Your task to perform on an android device: Open Wikipedia Image 0: 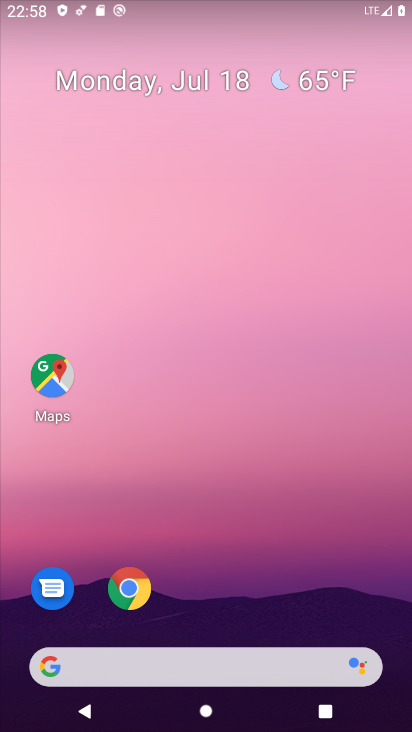
Step 0: click (52, 668)
Your task to perform on an android device: Open Wikipedia Image 1: 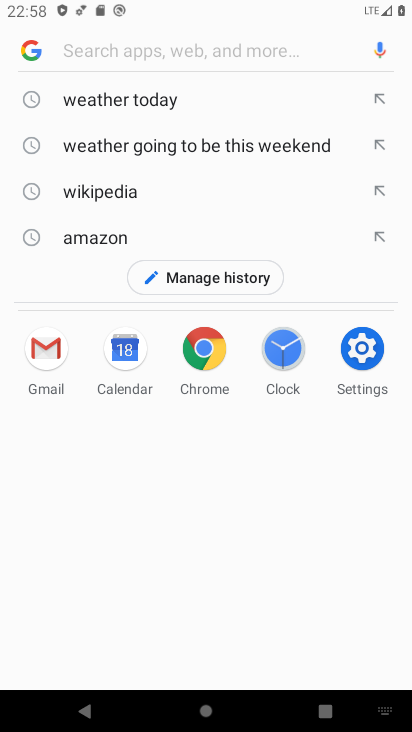
Step 1: click (102, 189)
Your task to perform on an android device: Open Wikipedia Image 2: 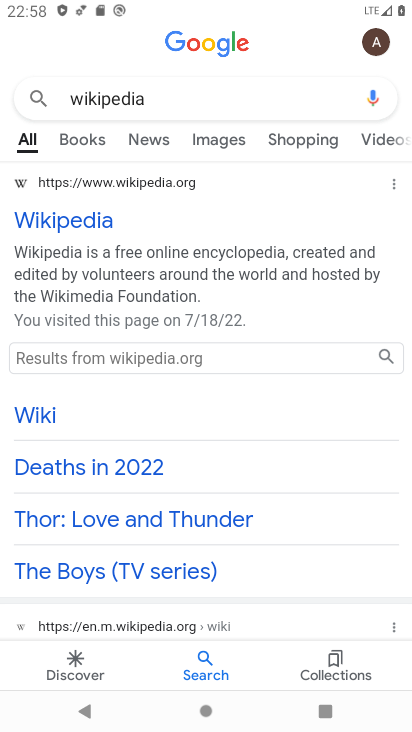
Step 2: click (55, 213)
Your task to perform on an android device: Open Wikipedia Image 3: 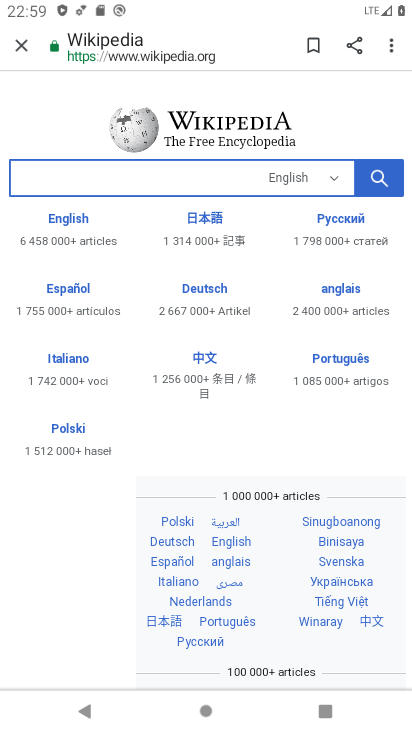
Step 3: task complete